Your task to perform on an android device: toggle wifi Image 0: 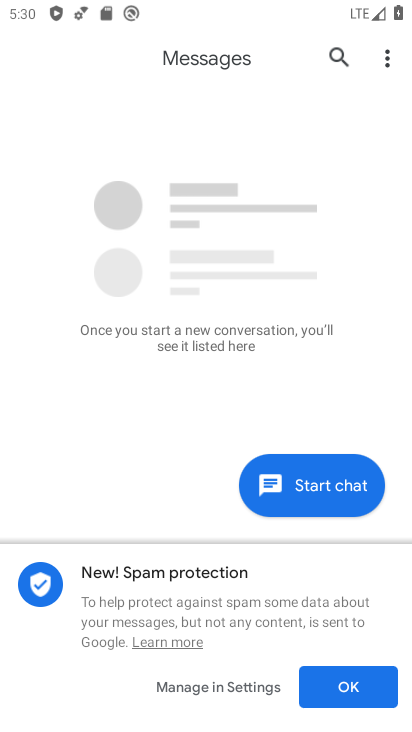
Step 0: press home button
Your task to perform on an android device: toggle wifi Image 1: 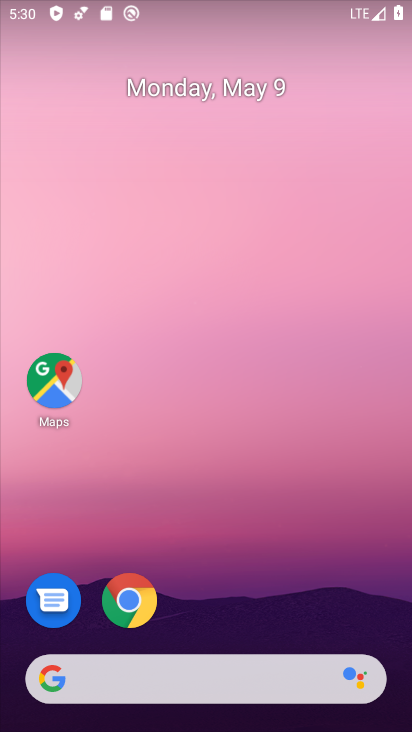
Step 1: drag from (220, 548) to (275, 28)
Your task to perform on an android device: toggle wifi Image 2: 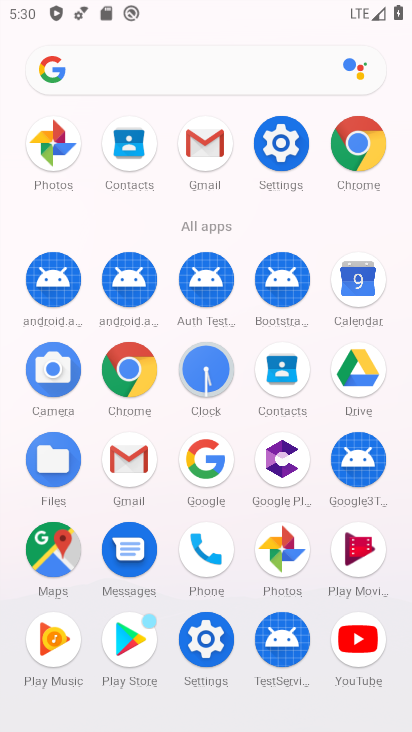
Step 2: click (294, 147)
Your task to perform on an android device: toggle wifi Image 3: 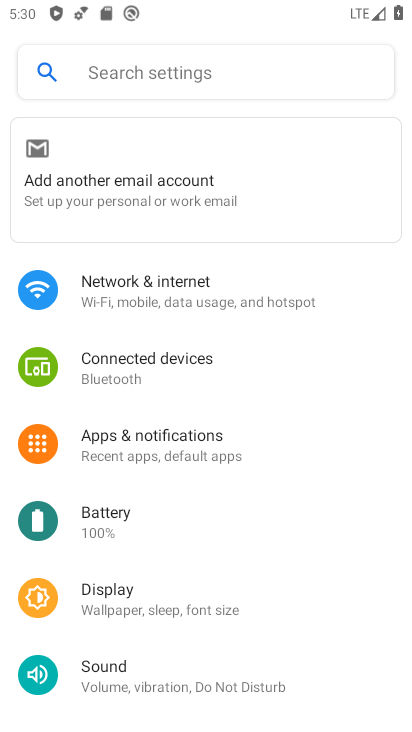
Step 3: click (165, 305)
Your task to perform on an android device: toggle wifi Image 4: 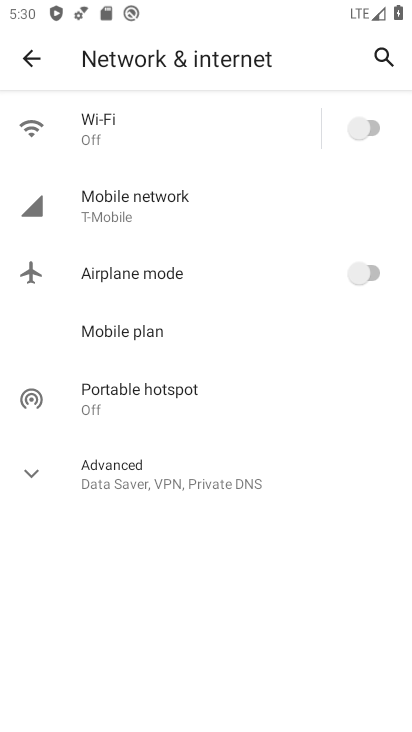
Step 4: click (376, 128)
Your task to perform on an android device: toggle wifi Image 5: 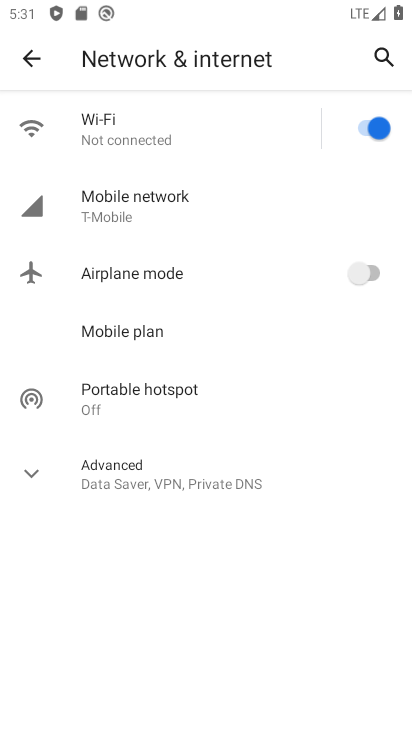
Step 5: task complete